Your task to perform on an android device: Open network settings Image 0: 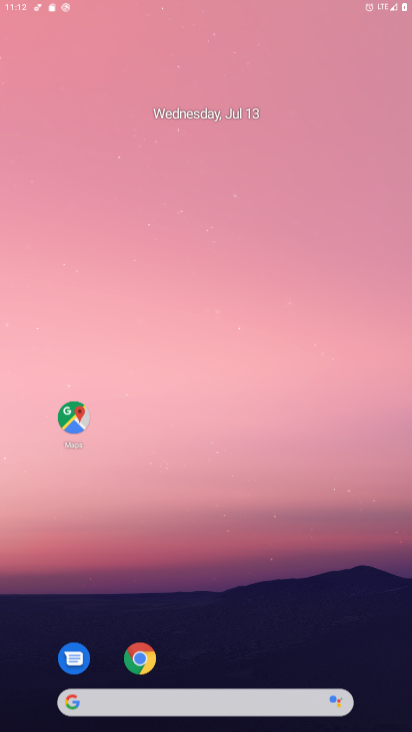
Step 0: press home button
Your task to perform on an android device: Open network settings Image 1: 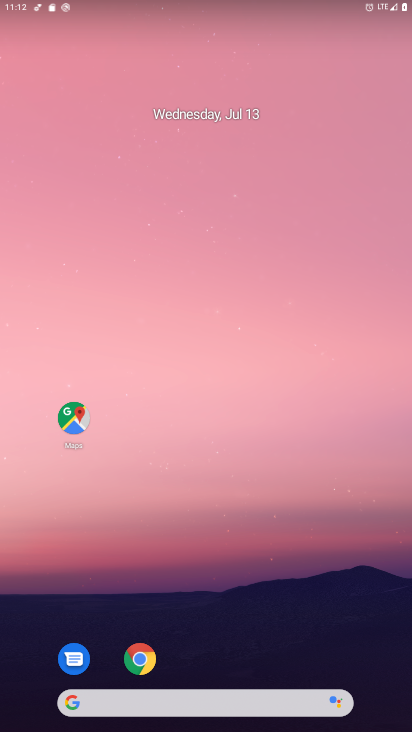
Step 1: press home button
Your task to perform on an android device: Open network settings Image 2: 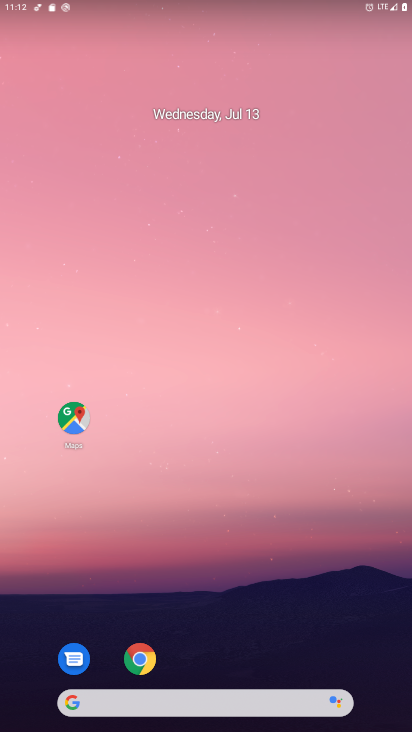
Step 2: drag from (214, 663) to (222, 65)
Your task to perform on an android device: Open network settings Image 3: 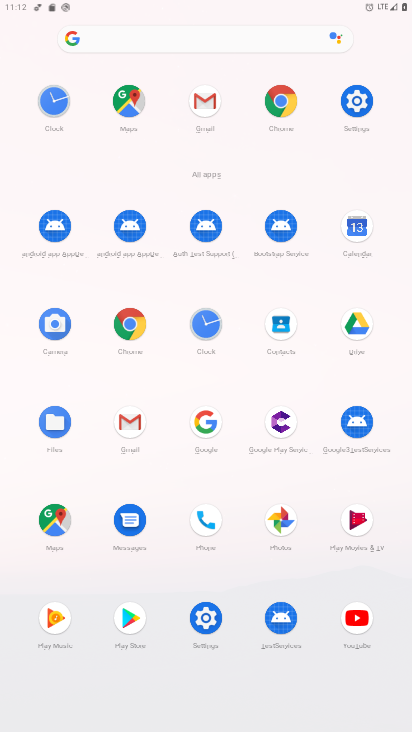
Step 3: click (359, 102)
Your task to perform on an android device: Open network settings Image 4: 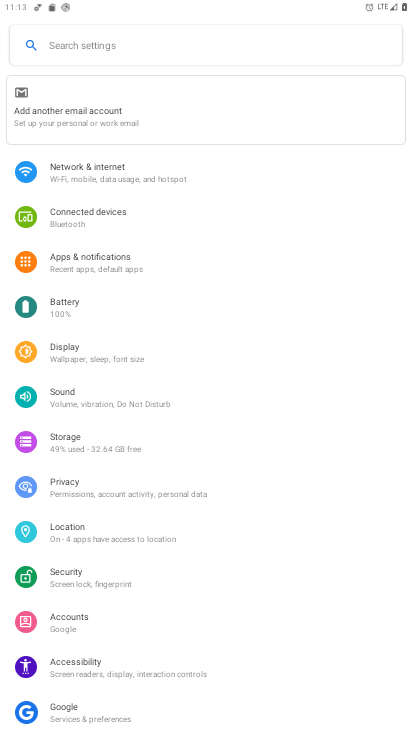
Step 4: click (128, 167)
Your task to perform on an android device: Open network settings Image 5: 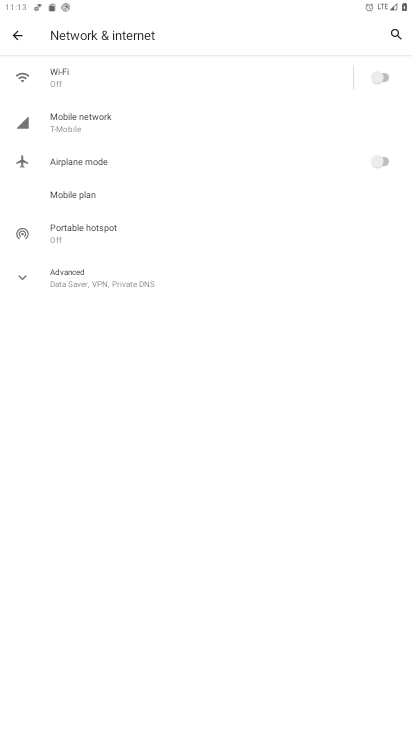
Step 5: click (22, 269)
Your task to perform on an android device: Open network settings Image 6: 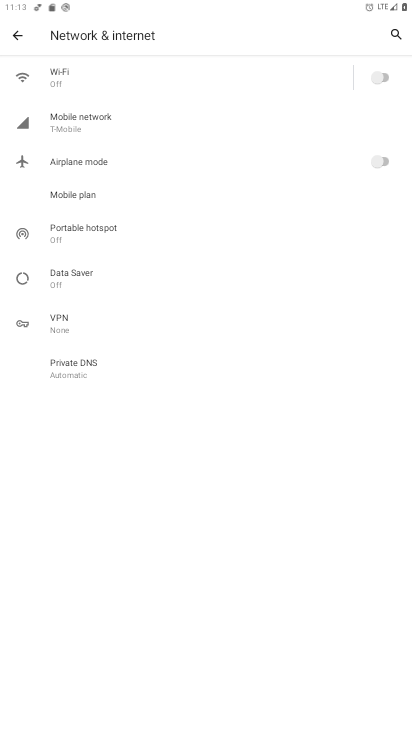
Step 6: task complete